Your task to perform on an android device: change alarm snooze length Image 0: 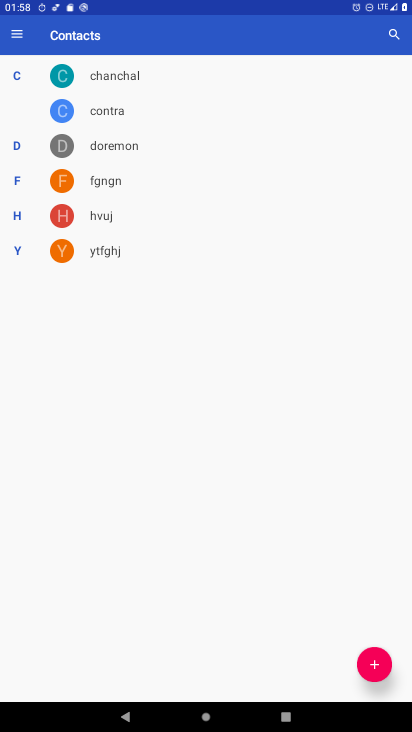
Step 0: press home button
Your task to perform on an android device: change alarm snooze length Image 1: 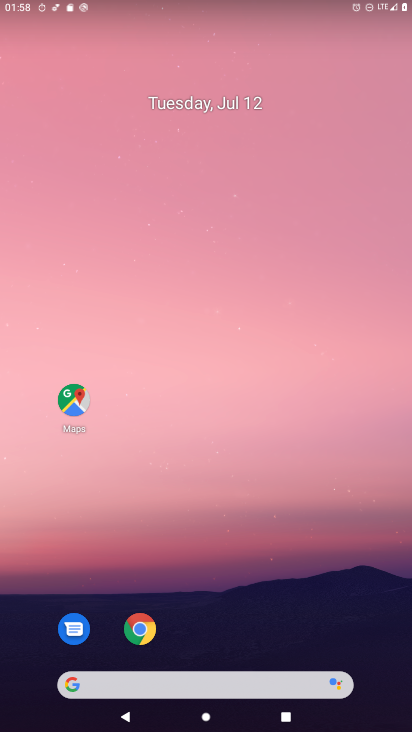
Step 1: drag from (26, 688) to (278, 26)
Your task to perform on an android device: change alarm snooze length Image 2: 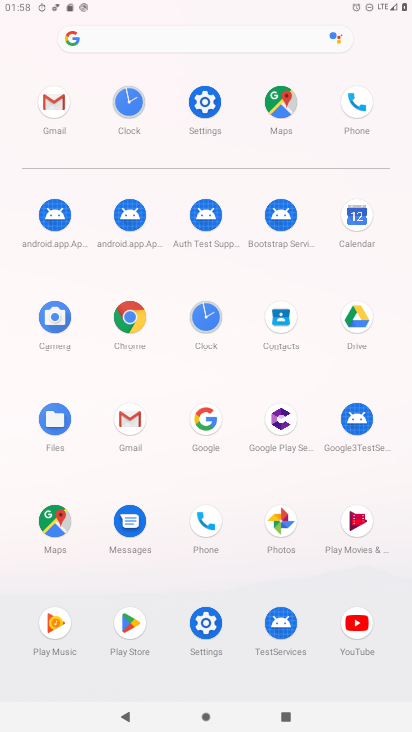
Step 2: click (205, 303)
Your task to perform on an android device: change alarm snooze length Image 3: 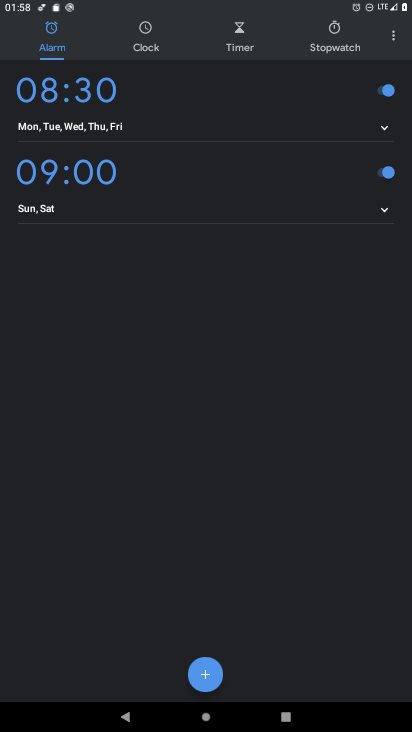
Step 3: click (387, 34)
Your task to perform on an android device: change alarm snooze length Image 4: 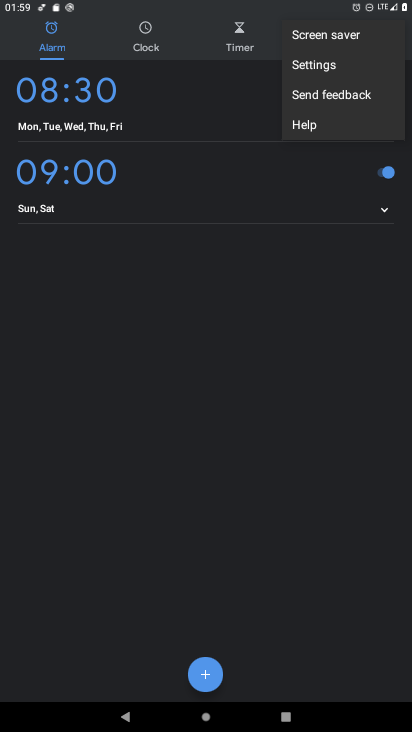
Step 4: click (308, 69)
Your task to perform on an android device: change alarm snooze length Image 5: 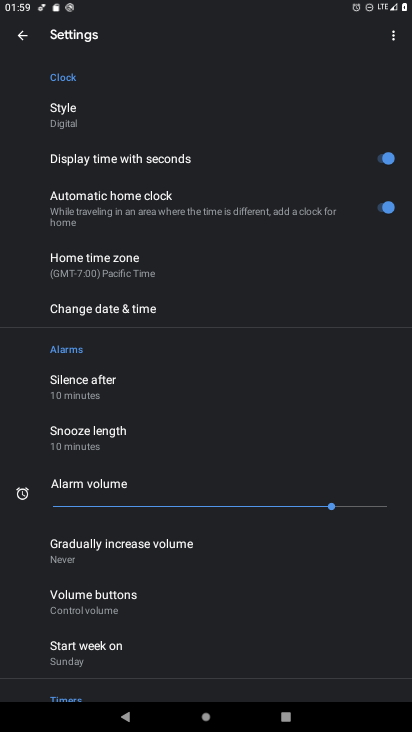
Step 5: click (122, 432)
Your task to perform on an android device: change alarm snooze length Image 6: 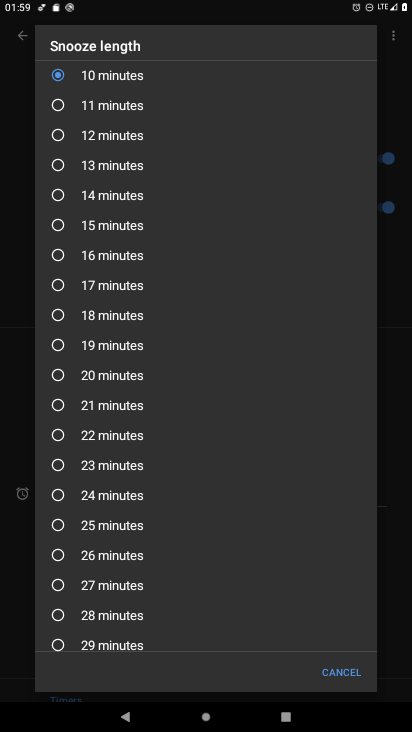
Step 6: click (65, 132)
Your task to perform on an android device: change alarm snooze length Image 7: 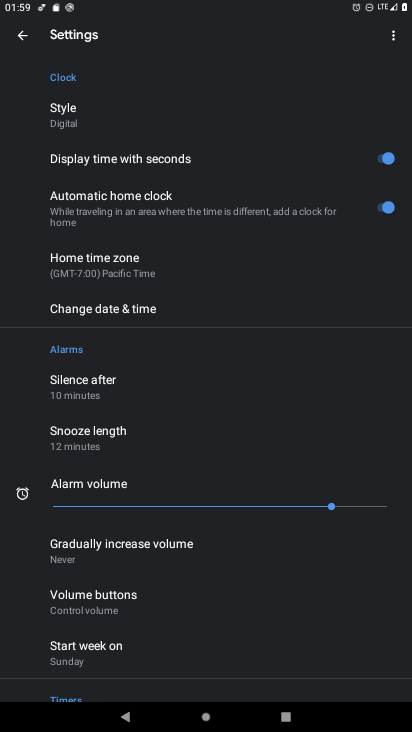
Step 7: task complete